Your task to perform on an android device: Show me popular videos on Youtube Image 0: 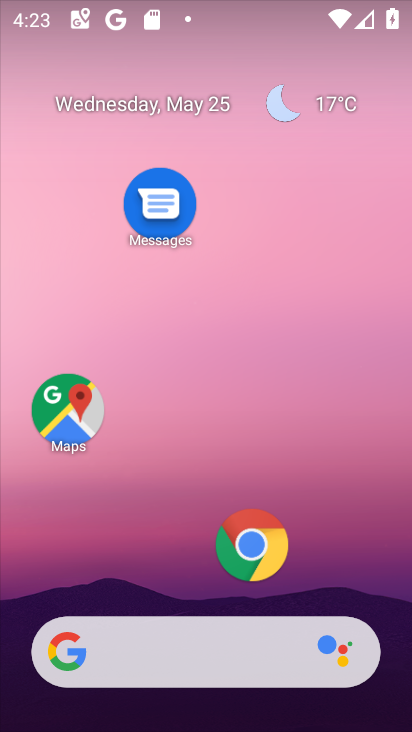
Step 0: drag from (322, 562) to (269, 73)
Your task to perform on an android device: Show me popular videos on Youtube Image 1: 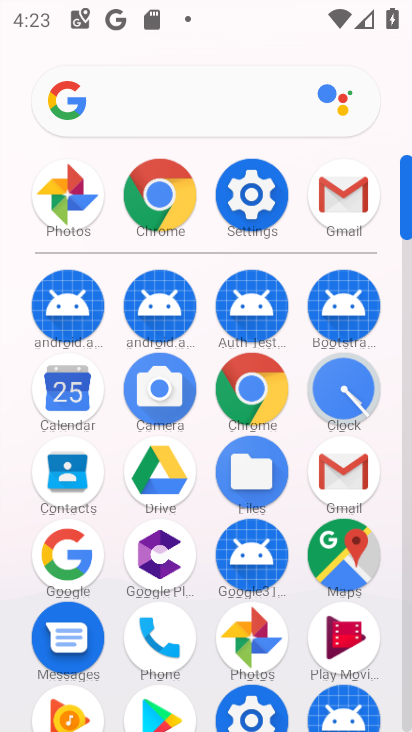
Step 1: drag from (202, 679) to (210, 226)
Your task to perform on an android device: Show me popular videos on Youtube Image 2: 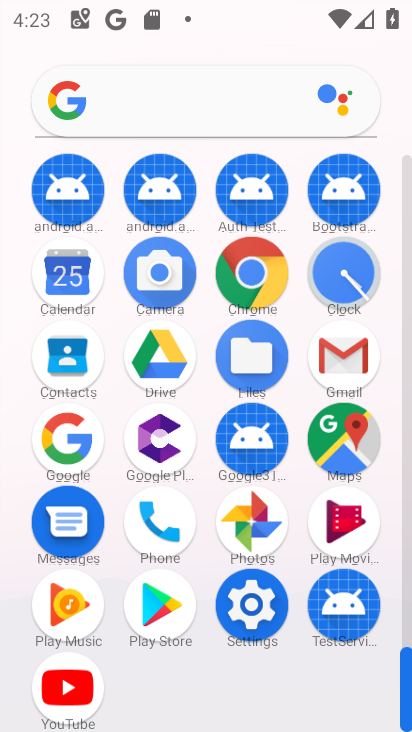
Step 2: click (77, 683)
Your task to perform on an android device: Show me popular videos on Youtube Image 3: 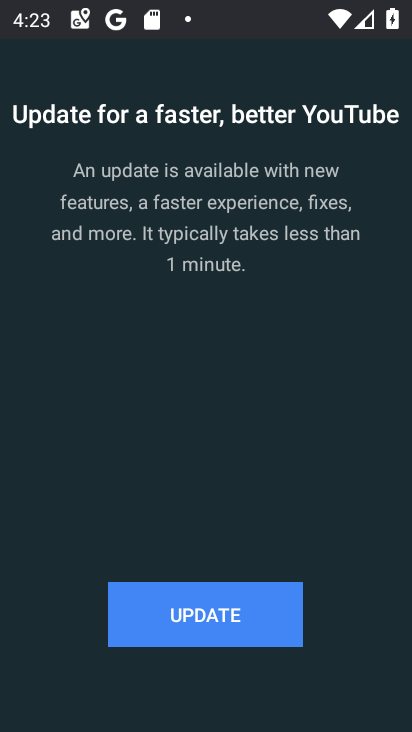
Step 3: click (196, 601)
Your task to perform on an android device: Show me popular videos on Youtube Image 4: 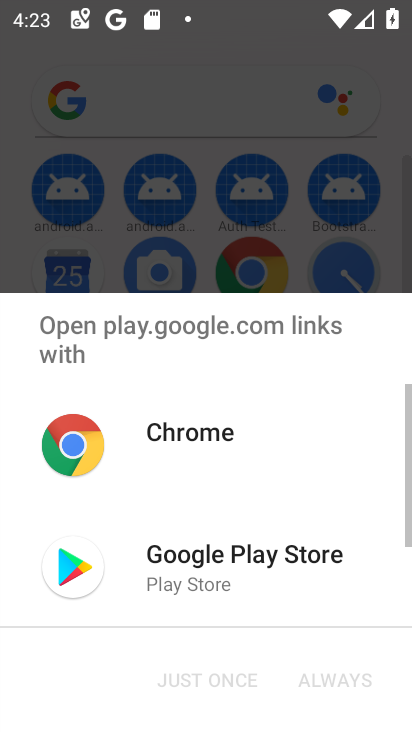
Step 4: click (250, 570)
Your task to perform on an android device: Show me popular videos on Youtube Image 5: 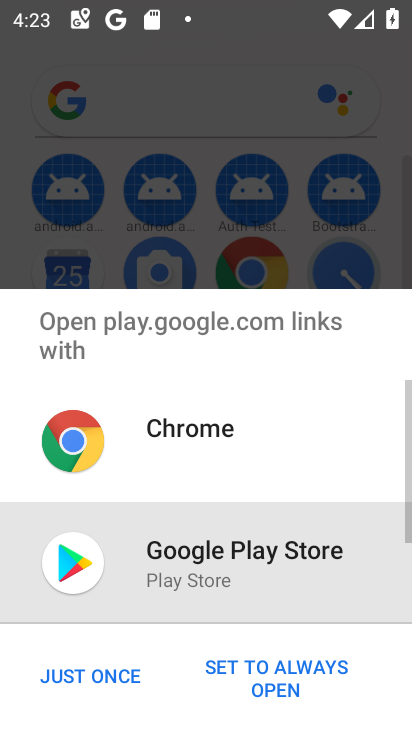
Step 5: click (89, 679)
Your task to perform on an android device: Show me popular videos on Youtube Image 6: 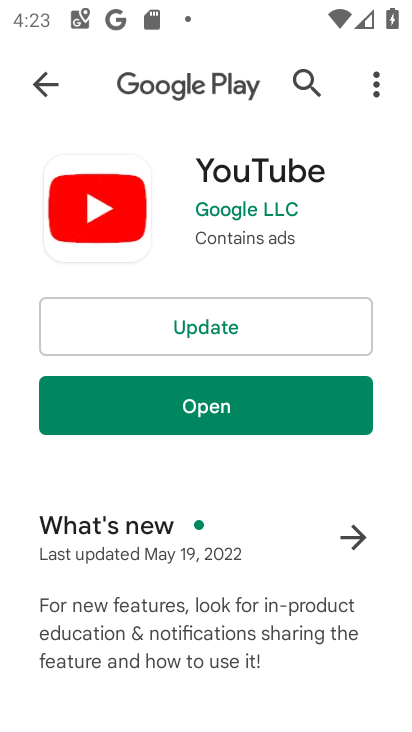
Step 6: click (199, 307)
Your task to perform on an android device: Show me popular videos on Youtube Image 7: 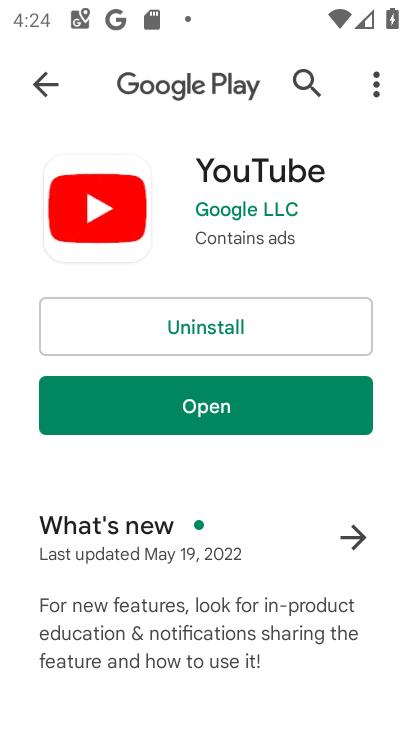
Step 7: click (256, 405)
Your task to perform on an android device: Show me popular videos on Youtube Image 8: 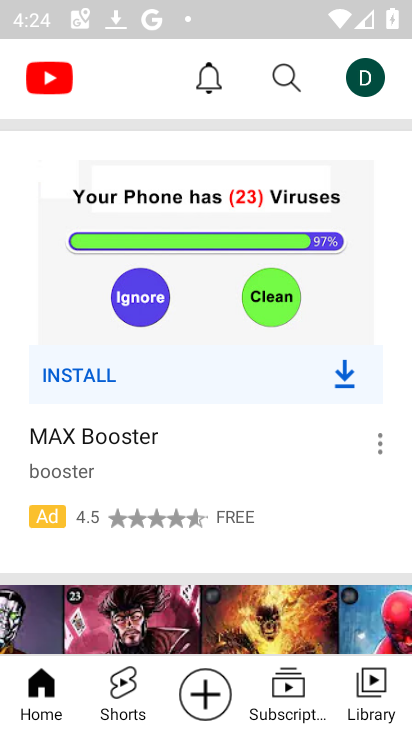
Step 8: click (286, 93)
Your task to perform on an android device: Show me popular videos on Youtube Image 9: 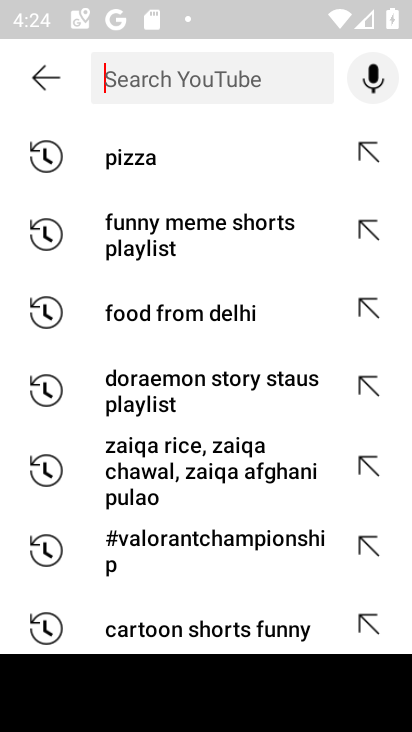
Step 9: type "popular videos"
Your task to perform on an android device: Show me popular videos on Youtube Image 10: 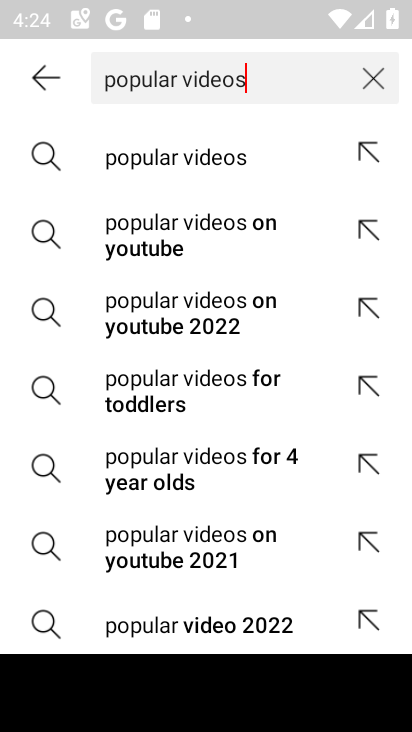
Step 10: click (213, 226)
Your task to perform on an android device: Show me popular videos on Youtube Image 11: 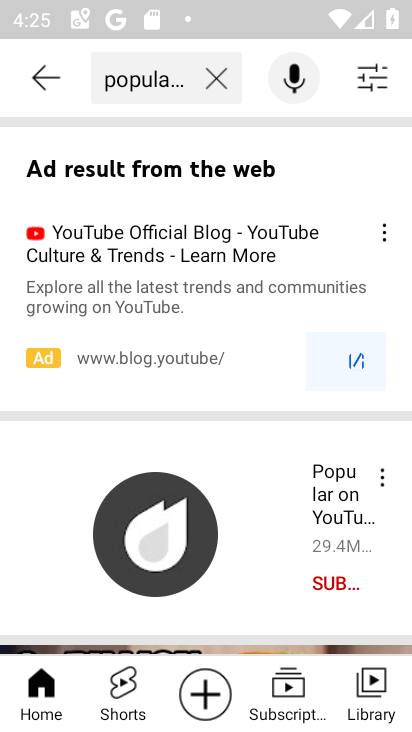
Step 11: task complete